Your task to perform on an android device: Open Google Chrome and click the shortcut for Amazon.com Image 0: 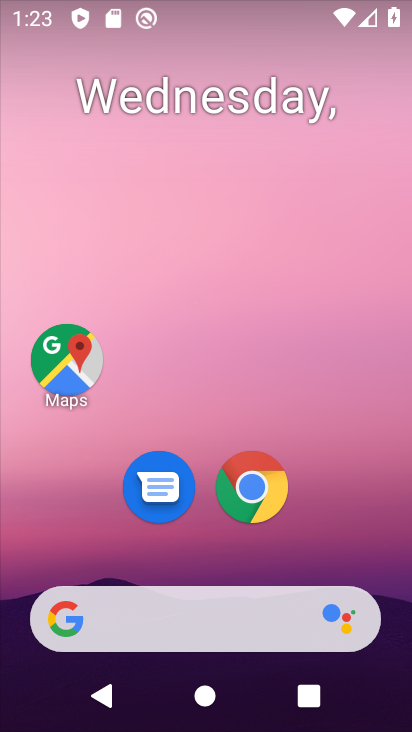
Step 0: click (249, 488)
Your task to perform on an android device: Open Google Chrome and click the shortcut for Amazon.com Image 1: 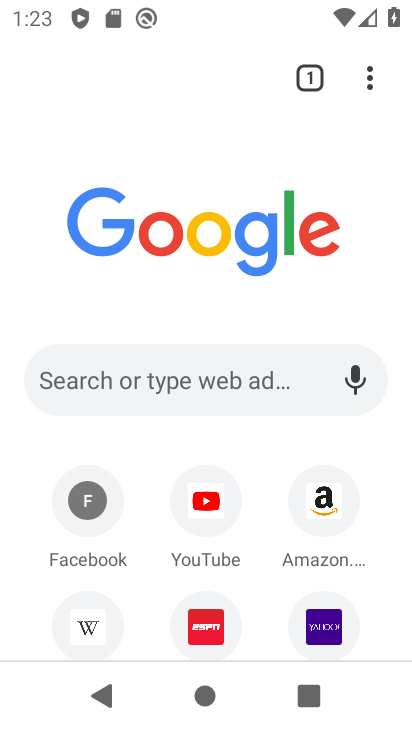
Step 1: click (368, 78)
Your task to perform on an android device: Open Google Chrome and click the shortcut for Amazon.com Image 2: 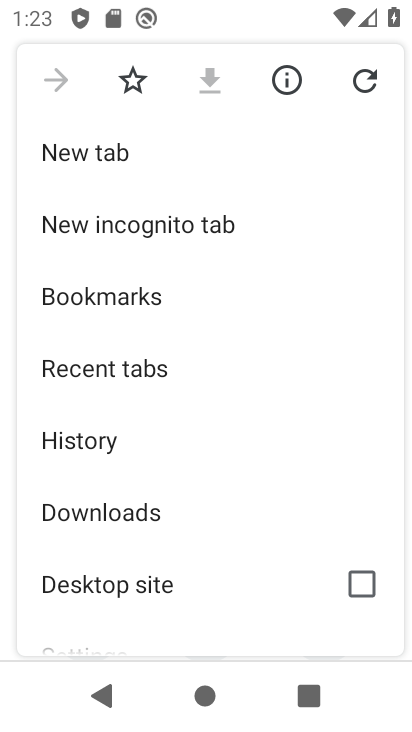
Step 2: click (66, 152)
Your task to perform on an android device: Open Google Chrome and click the shortcut for Amazon.com Image 3: 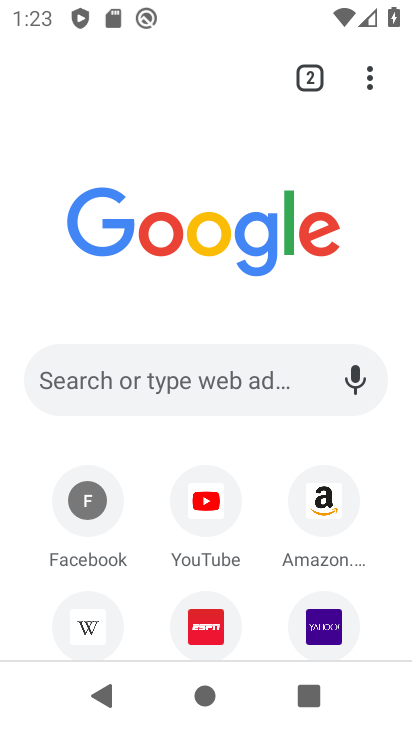
Step 3: click (311, 495)
Your task to perform on an android device: Open Google Chrome and click the shortcut for Amazon.com Image 4: 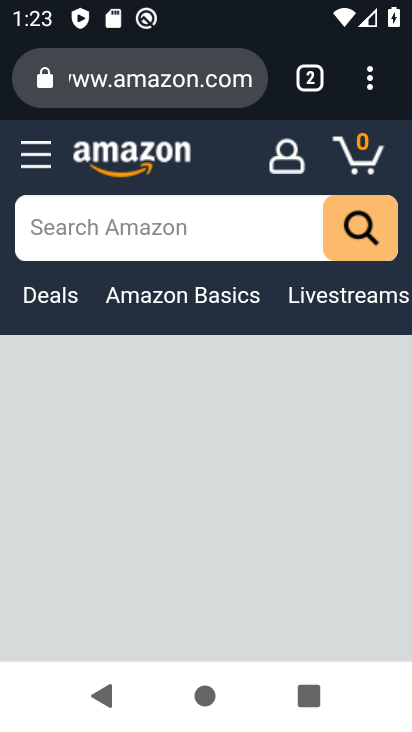
Step 4: task complete